Your task to perform on an android device: Clear the shopping cart on target.com. Search for apple airpods on target.com, select the first entry, and add it to the cart. Image 0: 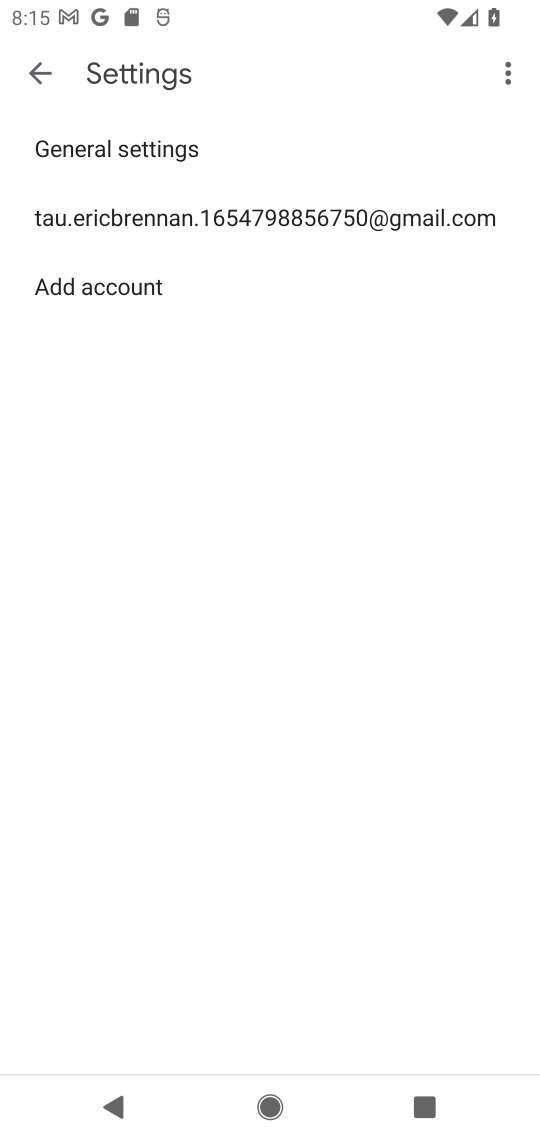
Step 0: press home button
Your task to perform on an android device: Clear the shopping cart on target.com. Search for apple airpods on target.com, select the first entry, and add it to the cart. Image 1: 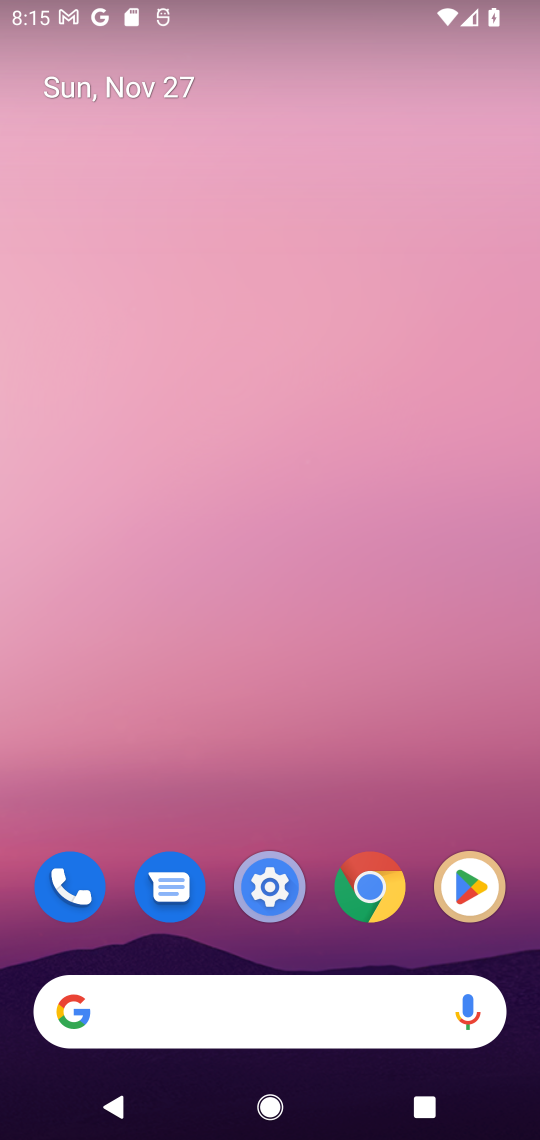
Step 1: click (270, 1011)
Your task to perform on an android device: Clear the shopping cart on target.com. Search for apple airpods on target.com, select the first entry, and add it to the cart. Image 2: 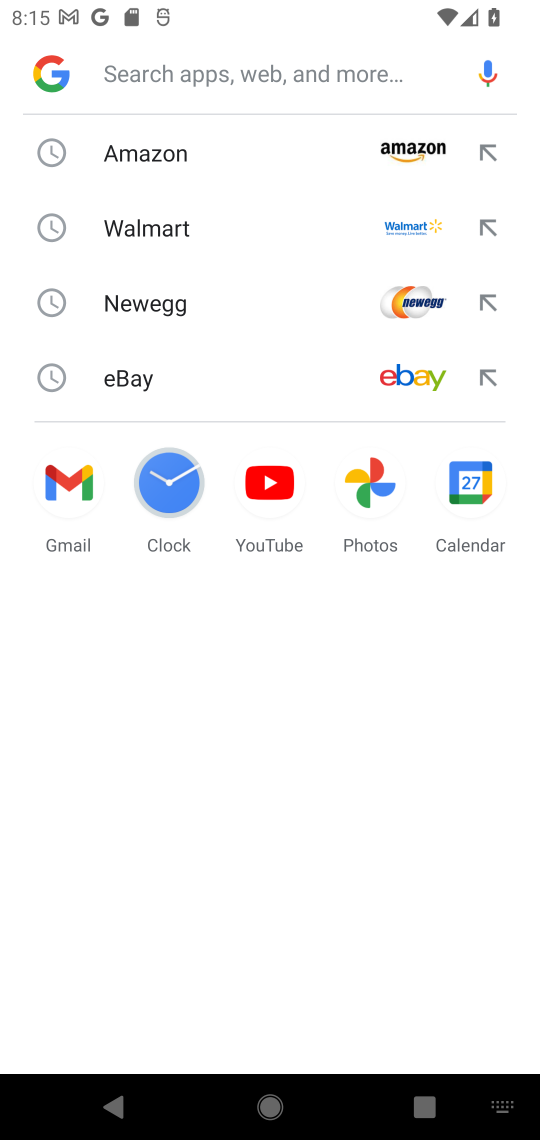
Step 2: type "target"
Your task to perform on an android device: Clear the shopping cart on target.com. Search for apple airpods on target.com, select the first entry, and add it to the cart. Image 3: 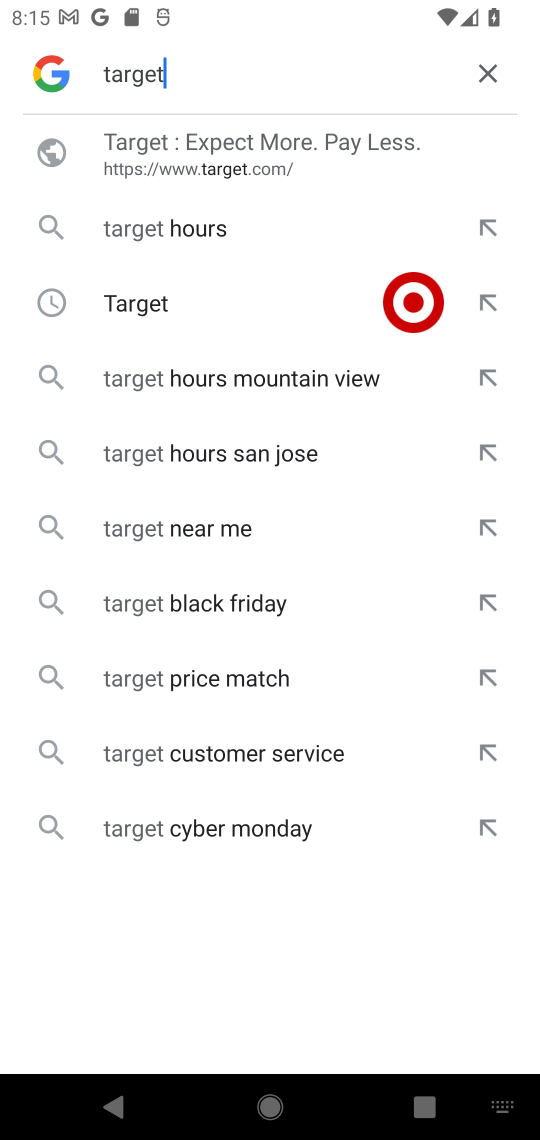
Step 3: click (265, 282)
Your task to perform on an android device: Clear the shopping cart on target.com. Search for apple airpods on target.com, select the first entry, and add it to the cart. Image 4: 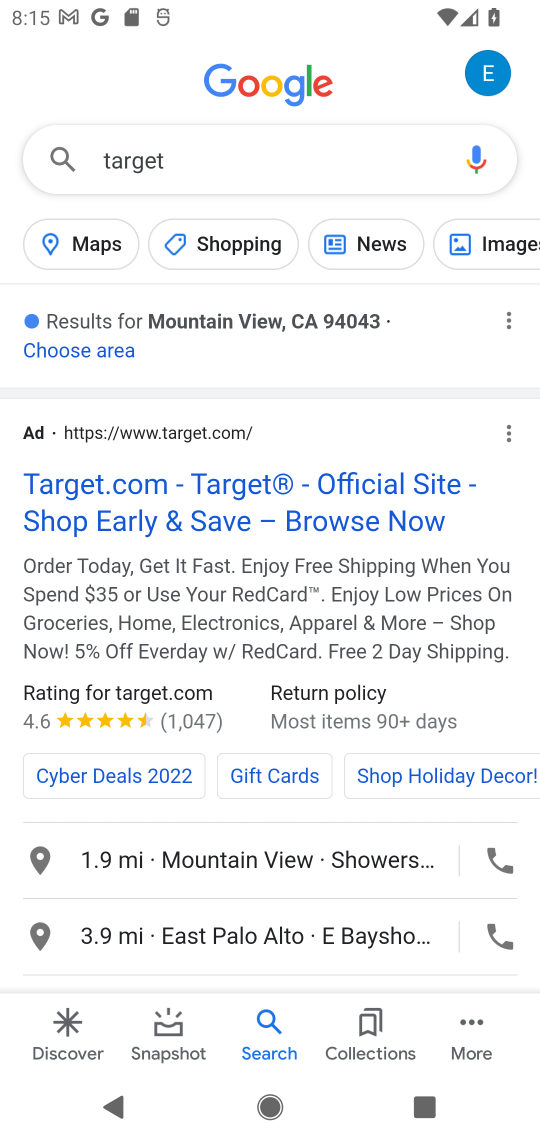
Step 4: click (240, 487)
Your task to perform on an android device: Clear the shopping cart on target.com. Search for apple airpods on target.com, select the first entry, and add it to the cart. Image 5: 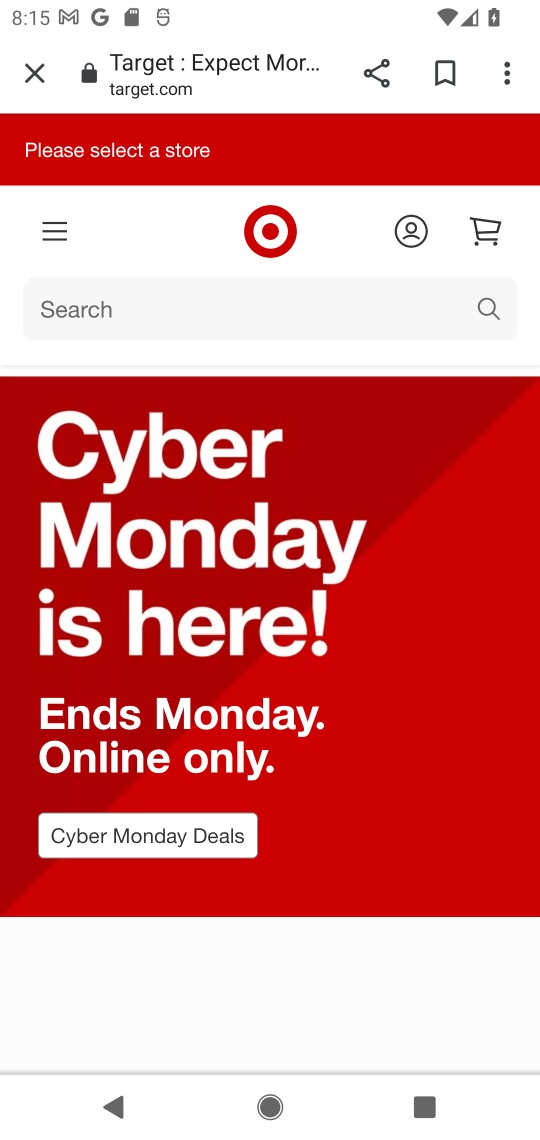
Step 5: click (211, 320)
Your task to perform on an android device: Clear the shopping cart on target.com. Search for apple airpods on target.com, select the first entry, and add it to the cart. Image 6: 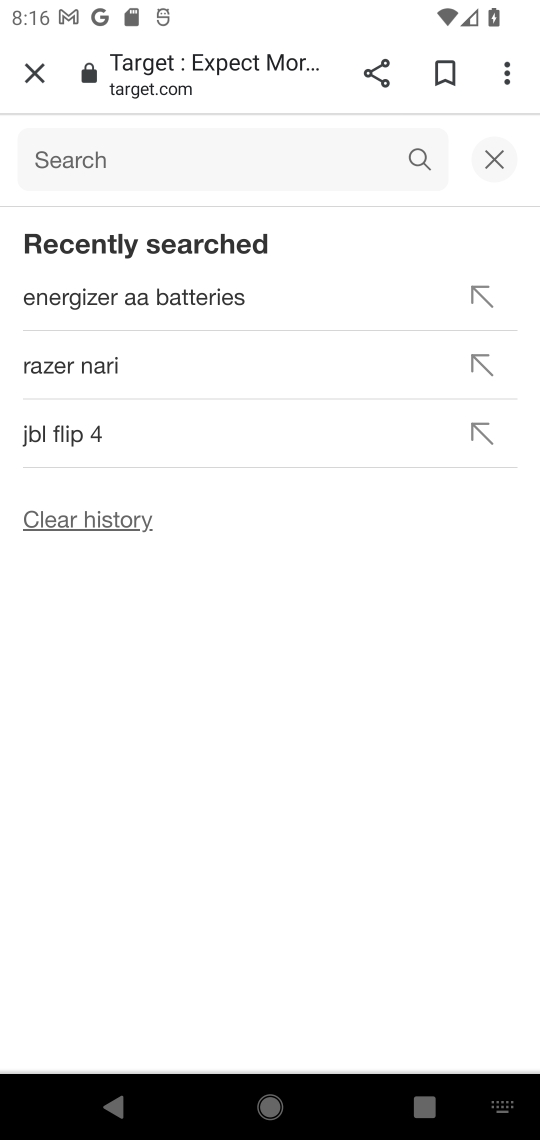
Step 6: click (28, 80)
Your task to perform on an android device: Clear the shopping cart on target.com. Search for apple airpods on target.com, select the first entry, and add it to the cart. Image 7: 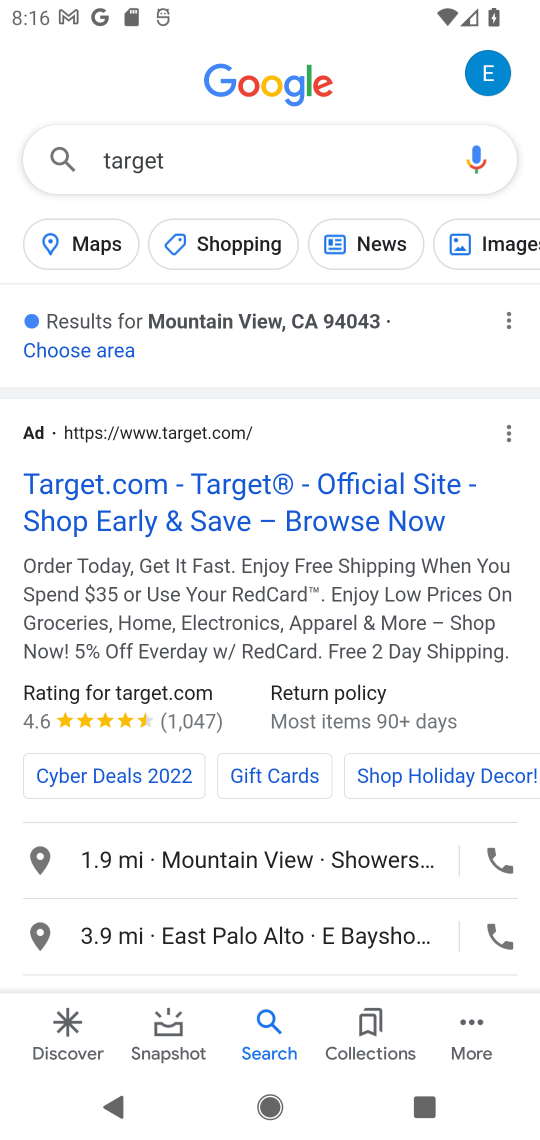
Step 7: click (268, 468)
Your task to perform on an android device: Clear the shopping cart on target.com. Search for apple airpods on target.com, select the first entry, and add it to the cart. Image 8: 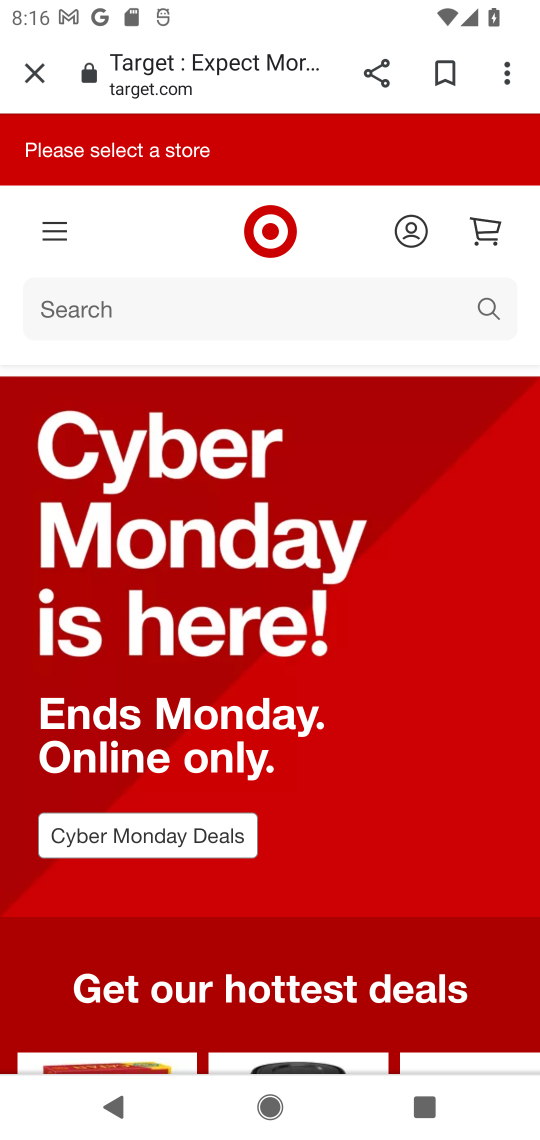
Step 8: click (252, 298)
Your task to perform on an android device: Clear the shopping cart on target.com. Search for apple airpods on target.com, select the first entry, and add it to the cart. Image 9: 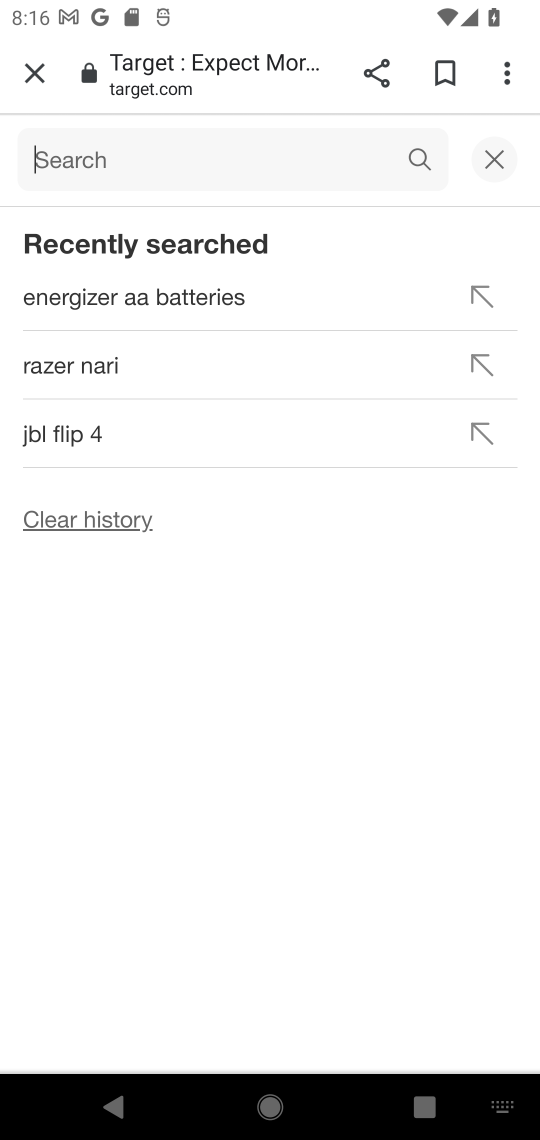
Step 9: task complete